Your task to perform on an android device: turn on the 24-hour format for clock Image 0: 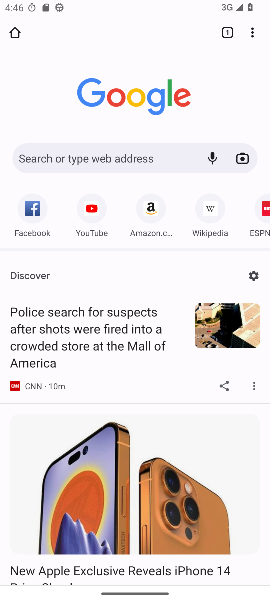
Step 0: press home button
Your task to perform on an android device: turn on the 24-hour format for clock Image 1: 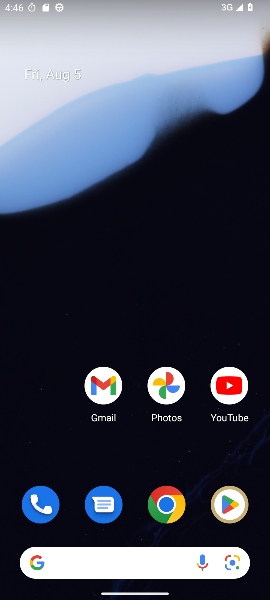
Step 1: drag from (21, 587) to (223, 321)
Your task to perform on an android device: turn on the 24-hour format for clock Image 2: 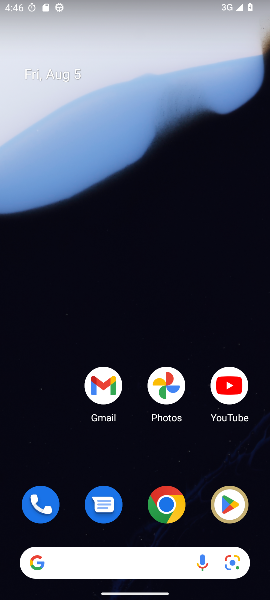
Step 2: click (14, 569)
Your task to perform on an android device: turn on the 24-hour format for clock Image 3: 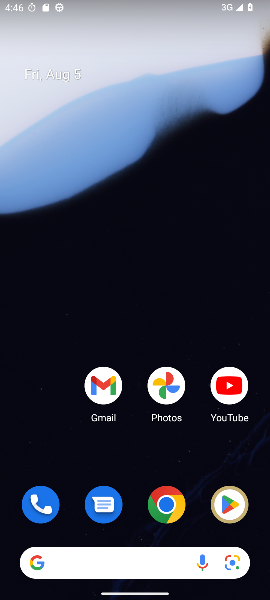
Step 3: drag from (14, 569) to (256, 227)
Your task to perform on an android device: turn on the 24-hour format for clock Image 4: 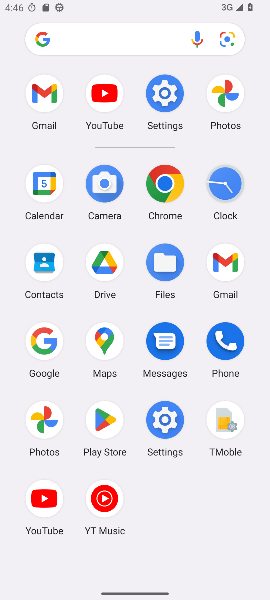
Step 4: click (216, 202)
Your task to perform on an android device: turn on the 24-hour format for clock Image 5: 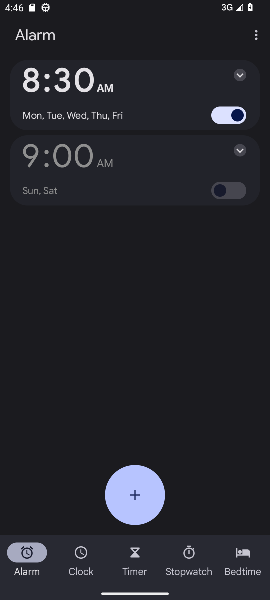
Step 5: click (262, 38)
Your task to perform on an android device: turn on the 24-hour format for clock Image 6: 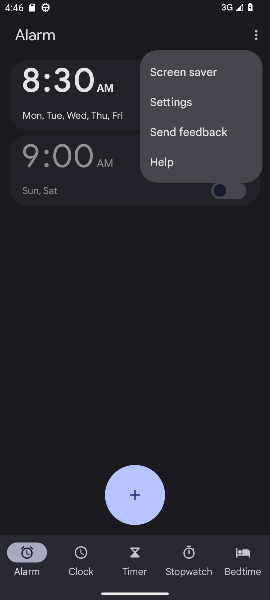
Step 6: click (165, 112)
Your task to perform on an android device: turn on the 24-hour format for clock Image 7: 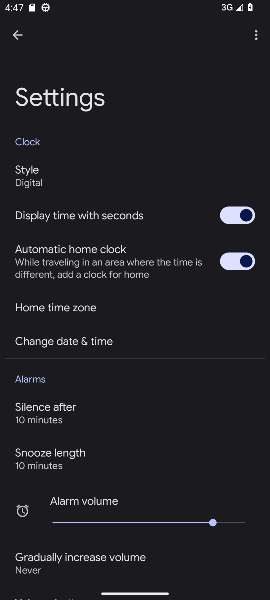
Step 7: click (83, 347)
Your task to perform on an android device: turn on the 24-hour format for clock Image 8: 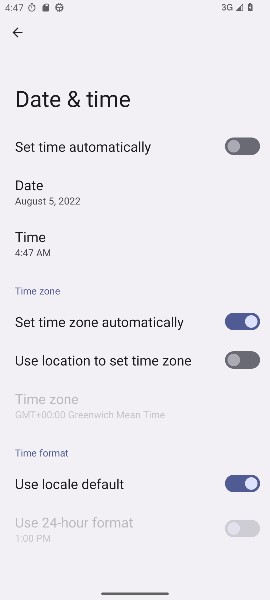
Step 8: click (251, 483)
Your task to perform on an android device: turn on the 24-hour format for clock Image 9: 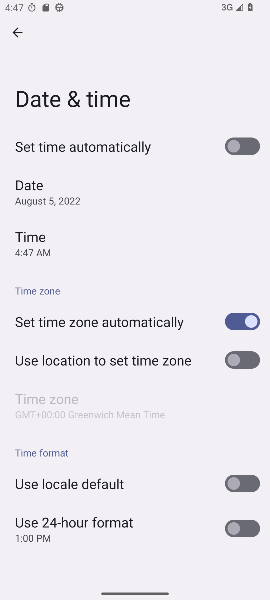
Step 9: click (227, 532)
Your task to perform on an android device: turn on the 24-hour format for clock Image 10: 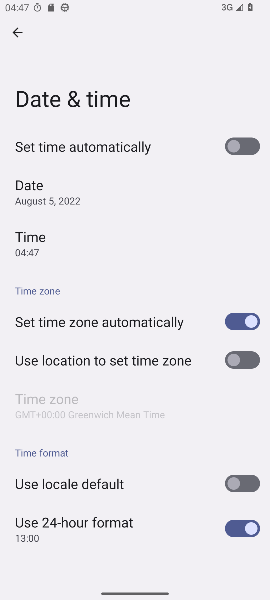
Step 10: task complete